Your task to perform on an android device: change keyboard looks Image 0: 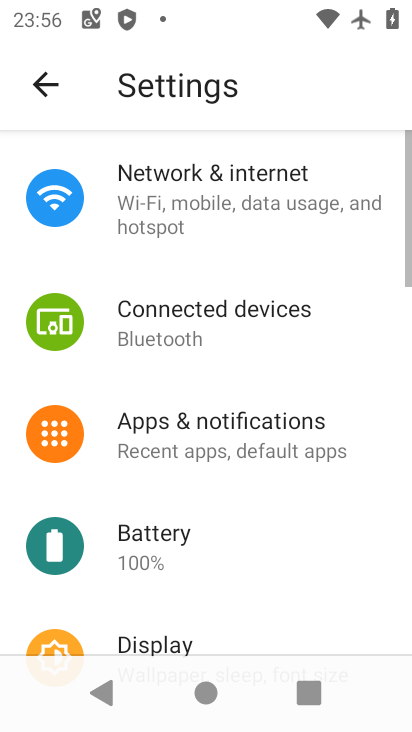
Step 0: drag from (214, 593) to (277, 203)
Your task to perform on an android device: change keyboard looks Image 1: 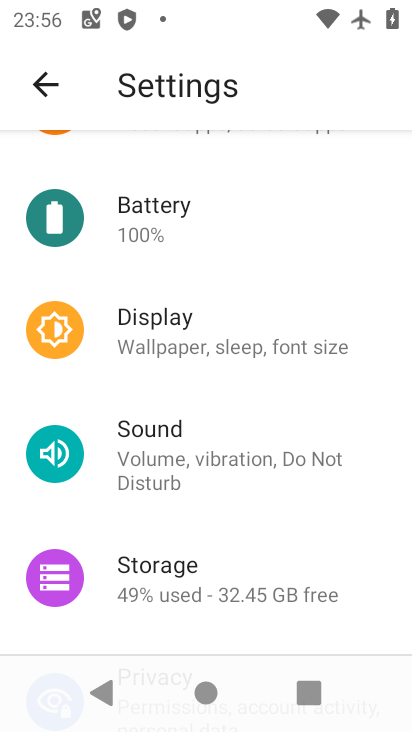
Step 1: drag from (221, 625) to (285, 305)
Your task to perform on an android device: change keyboard looks Image 2: 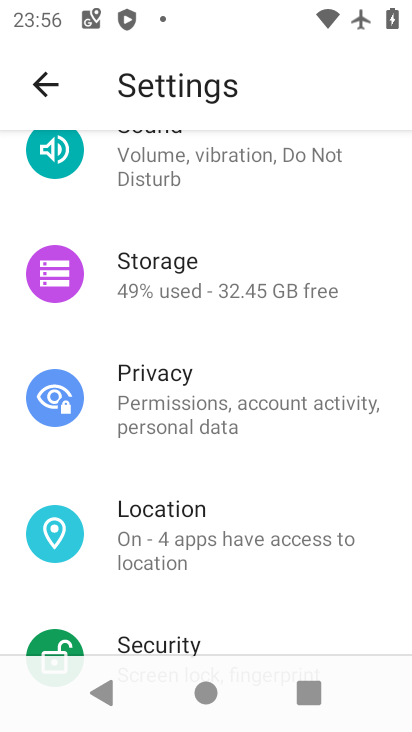
Step 2: drag from (243, 603) to (282, 289)
Your task to perform on an android device: change keyboard looks Image 3: 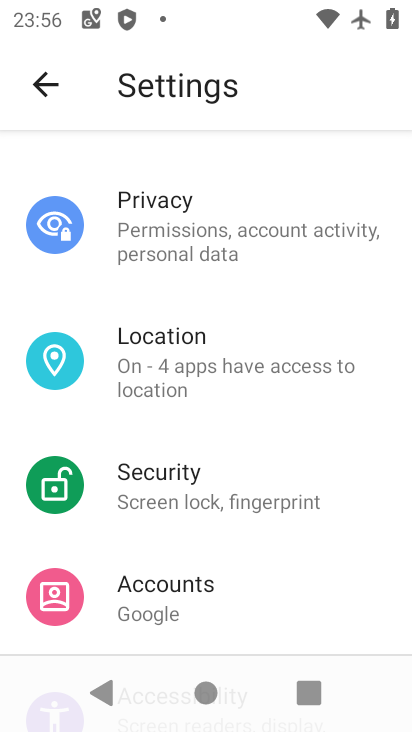
Step 3: drag from (166, 626) to (235, 237)
Your task to perform on an android device: change keyboard looks Image 4: 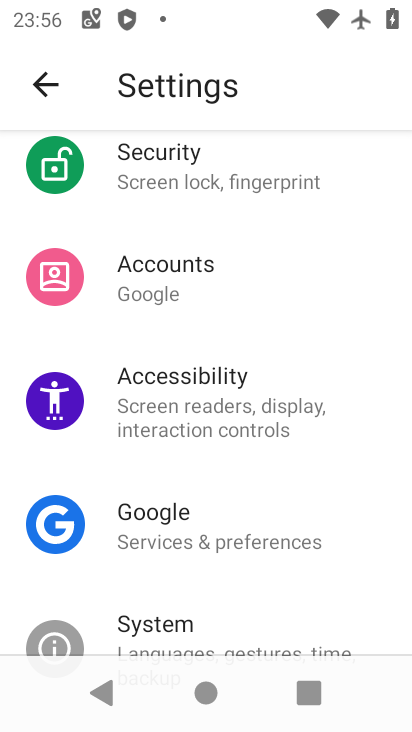
Step 4: drag from (180, 626) to (279, 259)
Your task to perform on an android device: change keyboard looks Image 5: 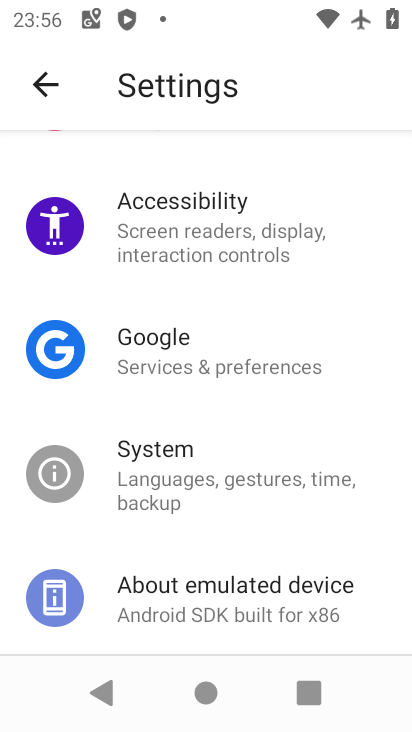
Step 5: click (200, 600)
Your task to perform on an android device: change keyboard looks Image 6: 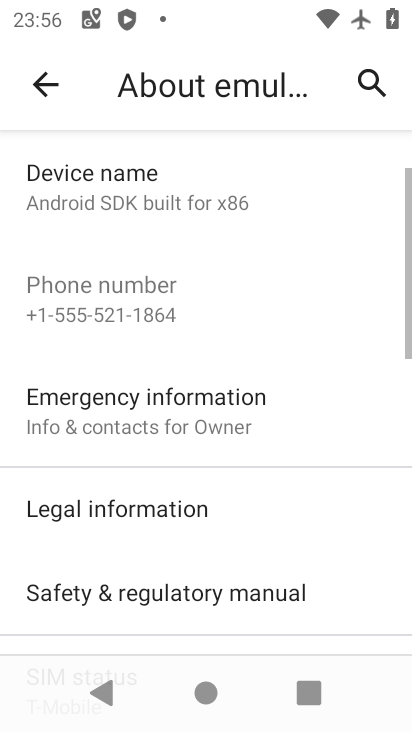
Step 6: click (51, 97)
Your task to perform on an android device: change keyboard looks Image 7: 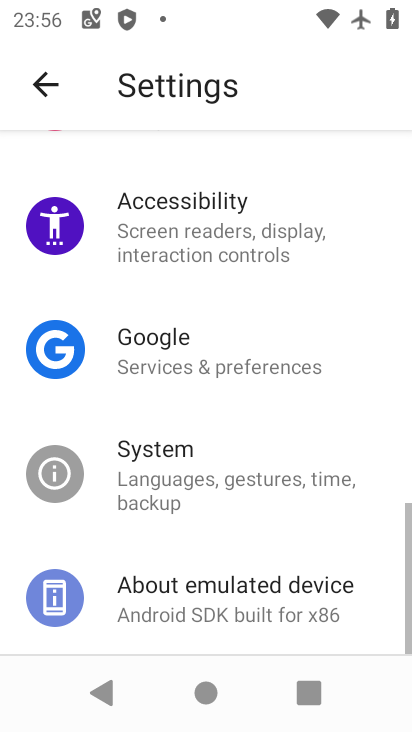
Step 7: click (160, 488)
Your task to perform on an android device: change keyboard looks Image 8: 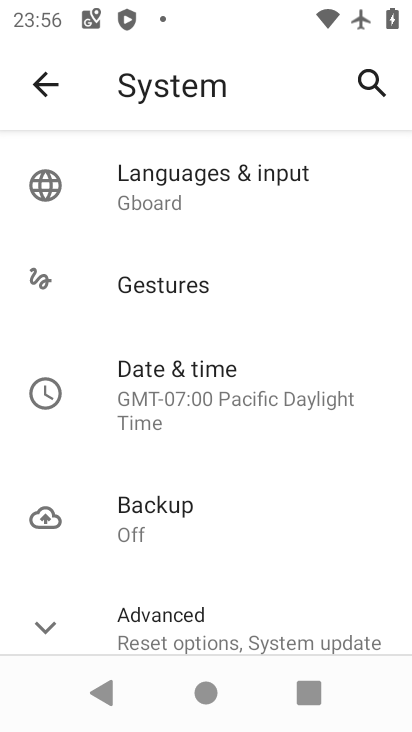
Step 8: click (181, 178)
Your task to perform on an android device: change keyboard looks Image 9: 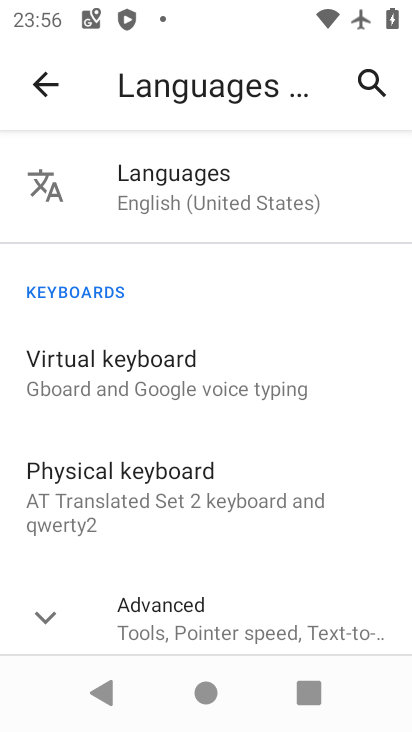
Step 9: click (115, 381)
Your task to perform on an android device: change keyboard looks Image 10: 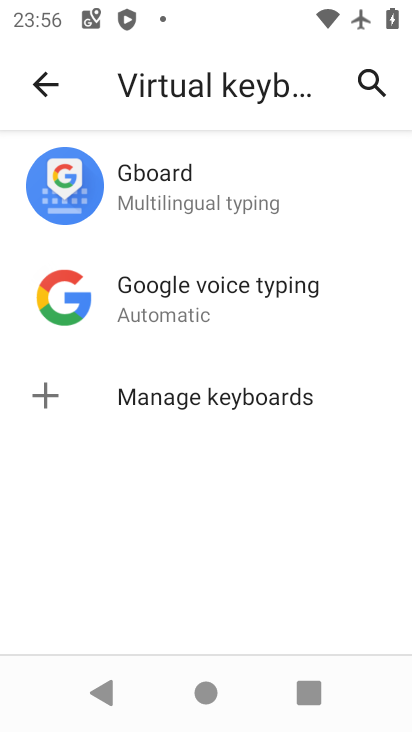
Step 10: click (140, 186)
Your task to perform on an android device: change keyboard looks Image 11: 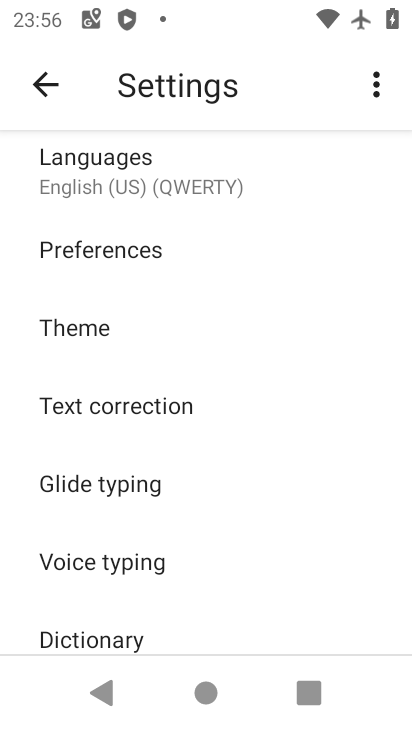
Step 11: click (83, 338)
Your task to perform on an android device: change keyboard looks Image 12: 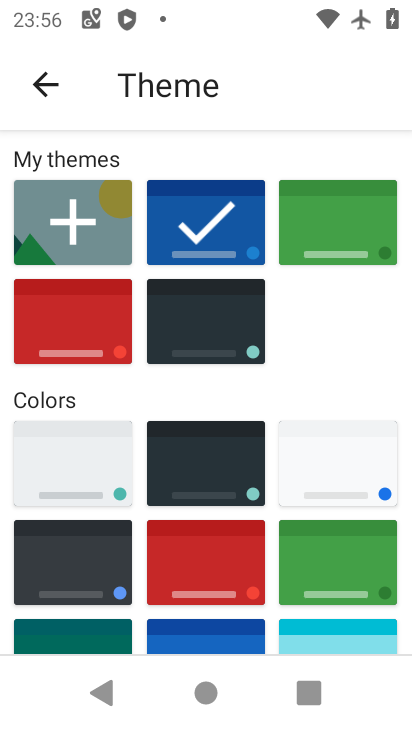
Step 12: click (85, 327)
Your task to perform on an android device: change keyboard looks Image 13: 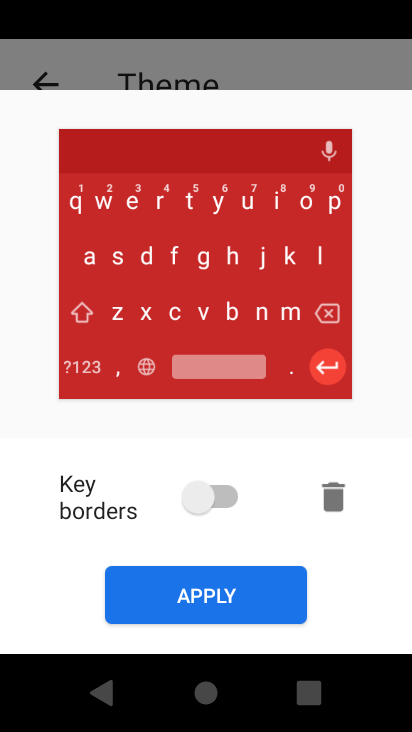
Step 13: click (151, 612)
Your task to perform on an android device: change keyboard looks Image 14: 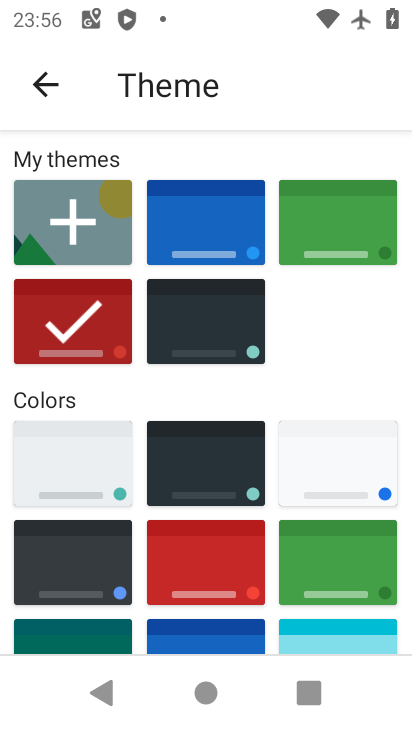
Step 14: task complete